Your task to perform on an android device: Turn on the flashlight Image 0: 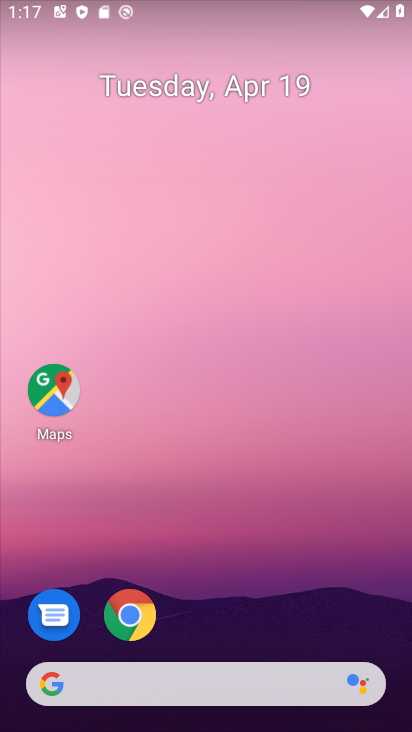
Step 0: drag from (242, 527) to (0, 559)
Your task to perform on an android device: Turn on the flashlight Image 1: 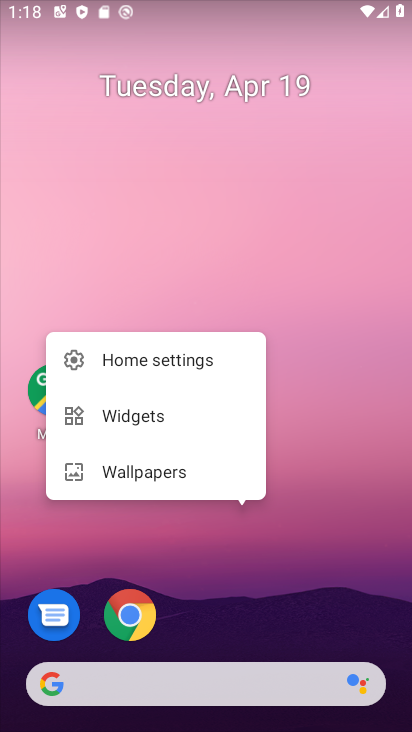
Step 1: drag from (219, 454) to (172, 2)
Your task to perform on an android device: Turn on the flashlight Image 2: 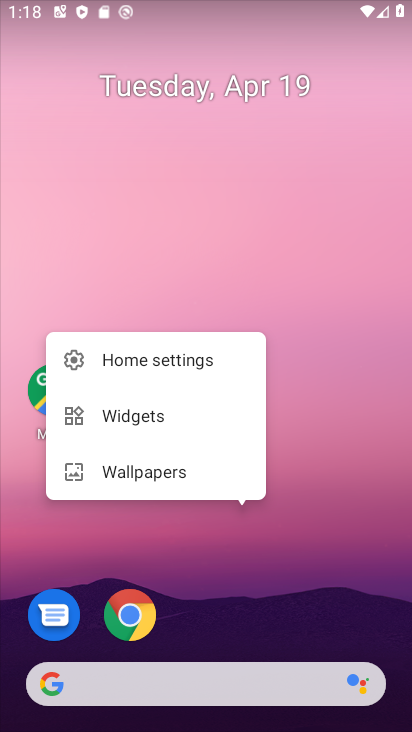
Step 2: click (274, 559)
Your task to perform on an android device: Turn on the flashlight Image 3: 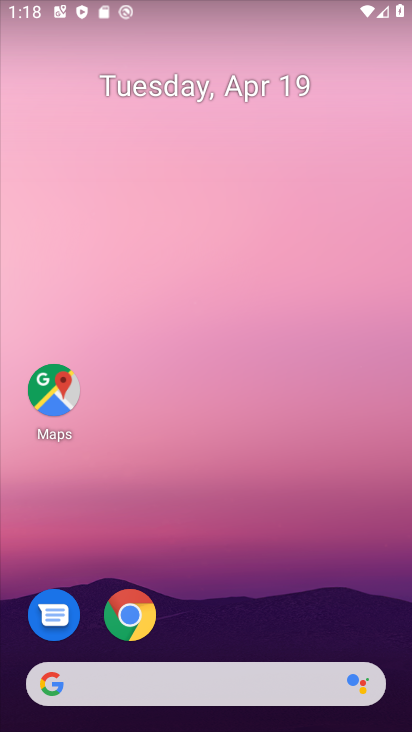
Step 3: drag from (217, 601) to (123, 9)
Your task to perform on an android device: Turn on the flashlight Image 4: 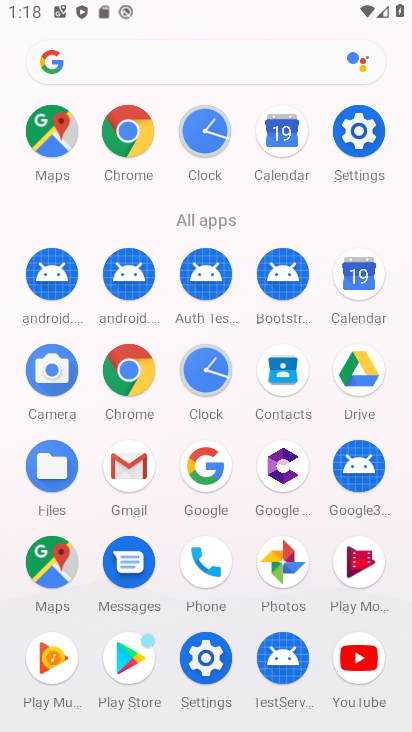
Step 4: click (357, 132)
Your task to perform on an android device: Turn on the flashlight Image 5: 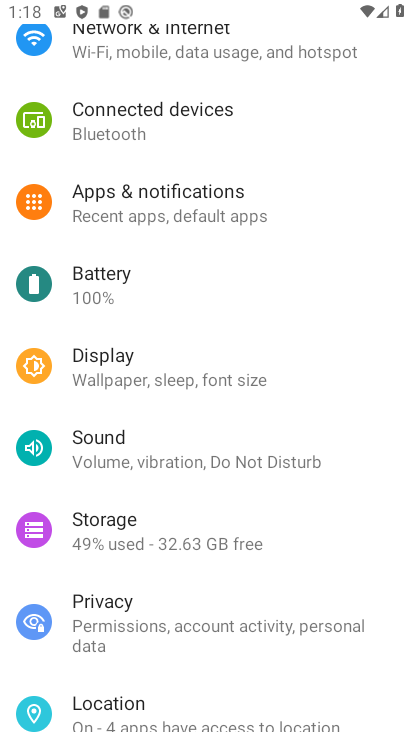
Step 5: click (103, 202)
Your task to perform on an android device: Turn on the flashlight Image 6: 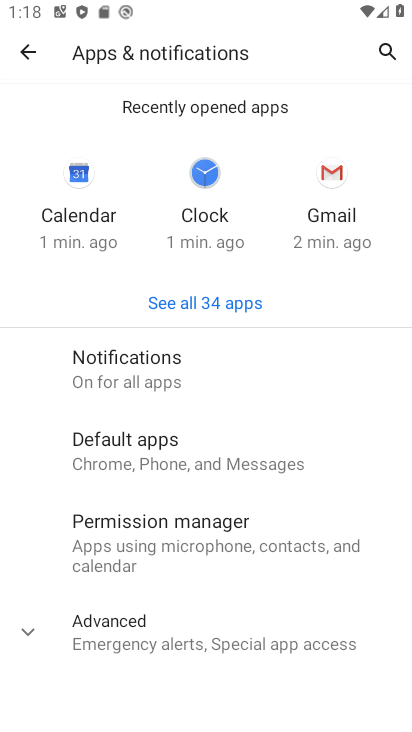
Step 6: task complete